Your task to perform on an android device: Go to Google maps Image 0: 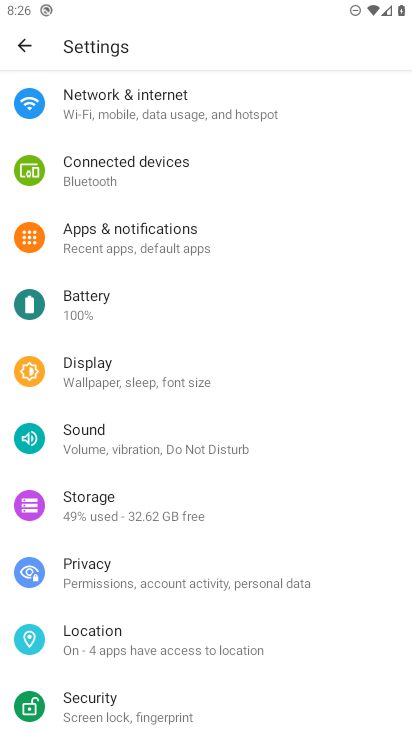
Step 0: press home button
Your task to perform on an android device: Go to Google maps Image 1: 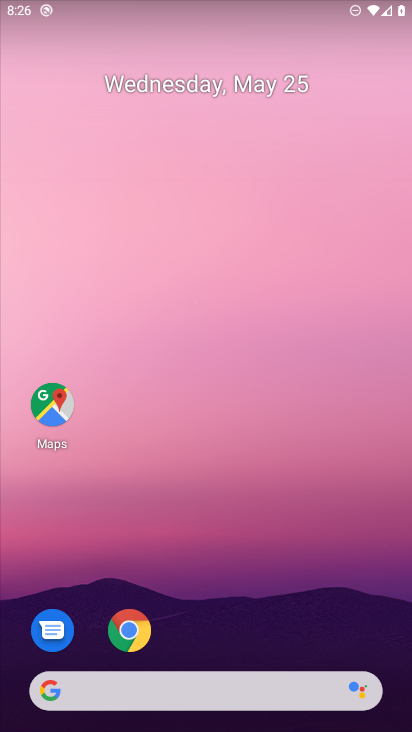
Step 1: click (44, 402)
Your task to perform on an android device: Go to Google maps Image 2: 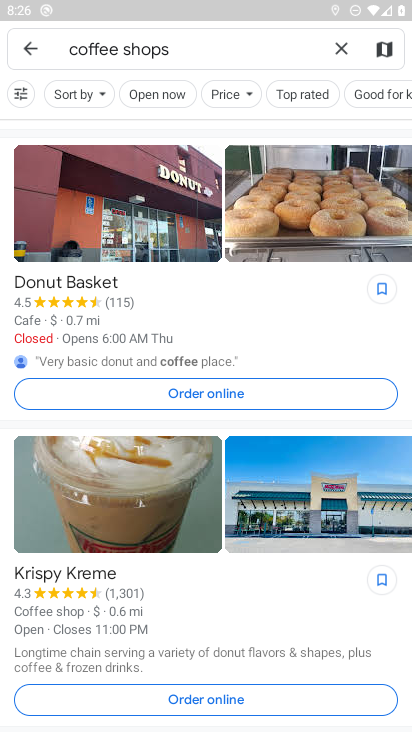
Step 2: click (344, 49)
Your task to perform on an android device: Go to Google maps Image 3: 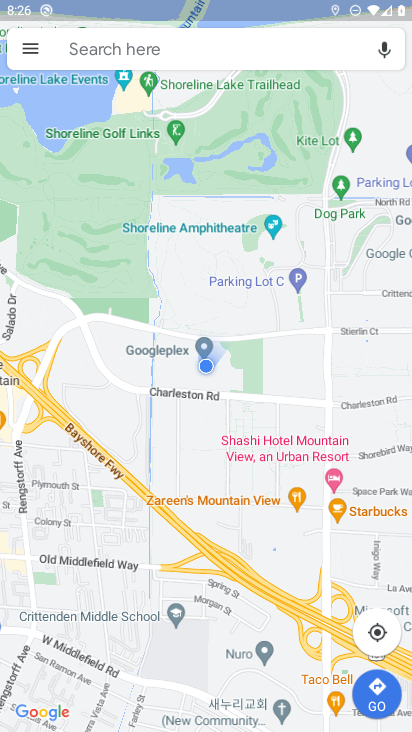
Step 3: task complete